Your task to perform on an android device: Add "bose soundlink mini" to the cart on costco.com Image 0: 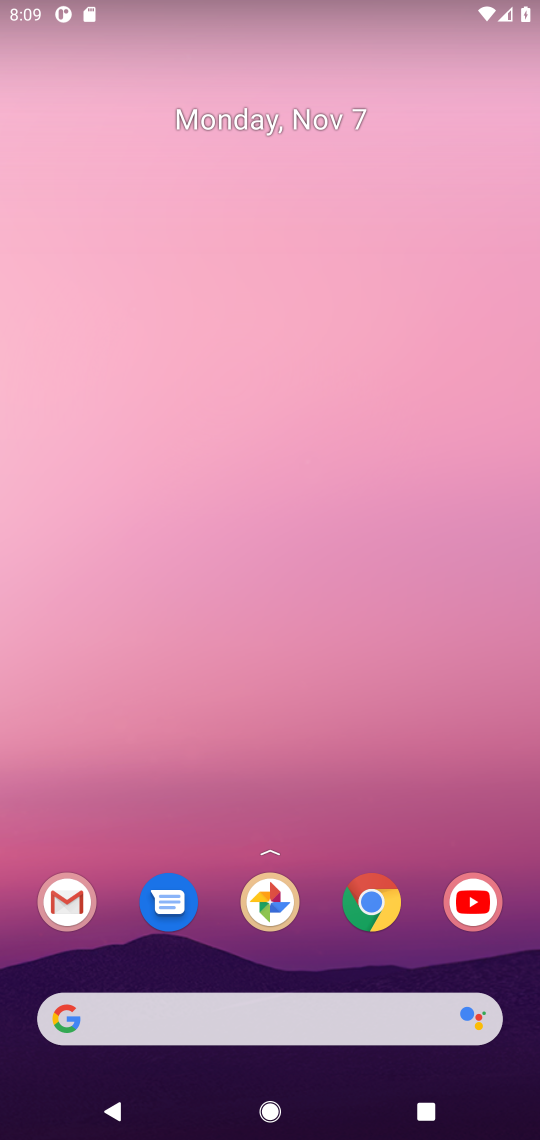
Step 0: click (374, 907)
Your task to perform on an android device: Add "bose soundlink mini" to the cart on costco.com Image 1: 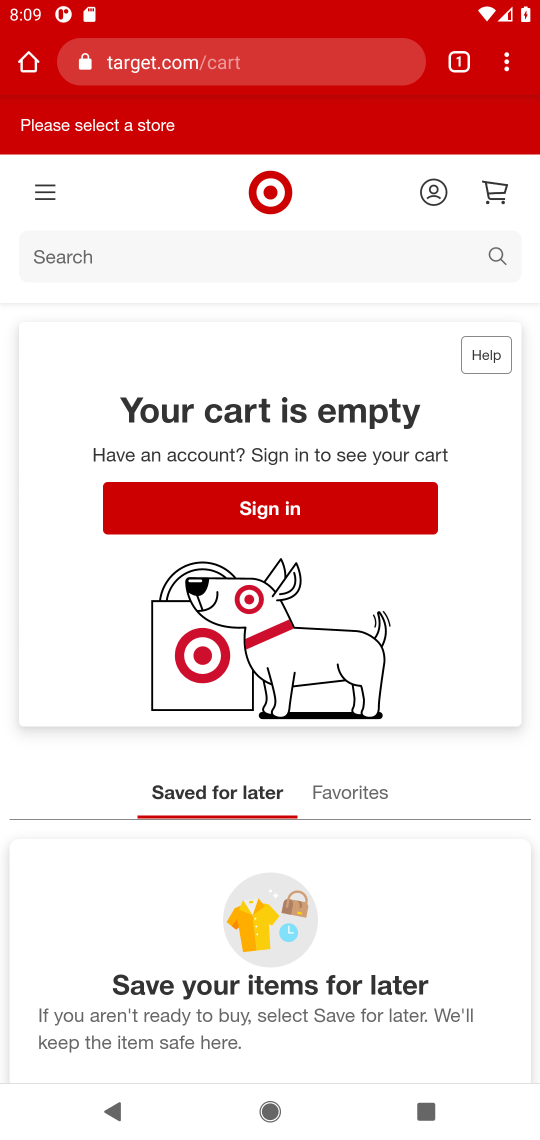
Step 1: click (218, 73)
Your task to perform on an android device: Add "bose soundlink mini" to the cart on costco.com Image 2: 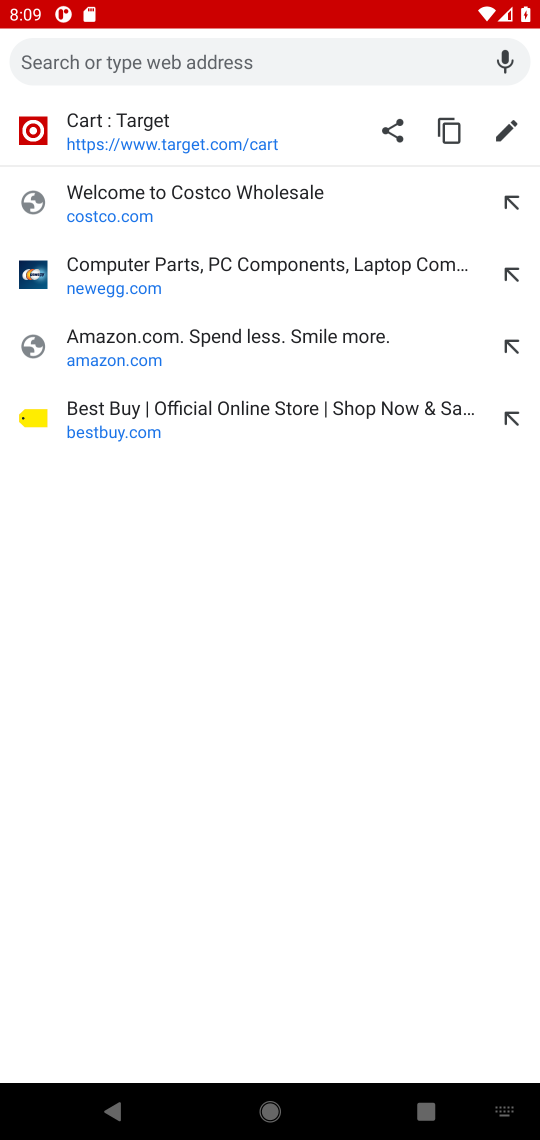
Step 2: click (105, 222)
Your task to perform on an android device: Add "bose soundlink mini" to the cart on costco.com Image 3: 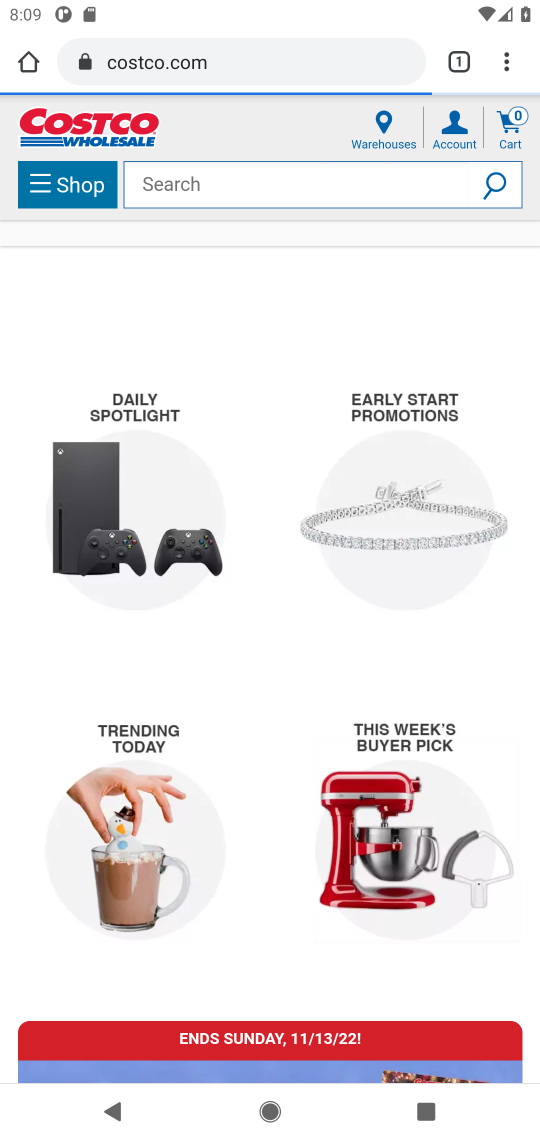
Step 3: click (179, 185)
Your task to perform on an android device: Add "bose soundlink mini" to the cart on costco.com Image 4: 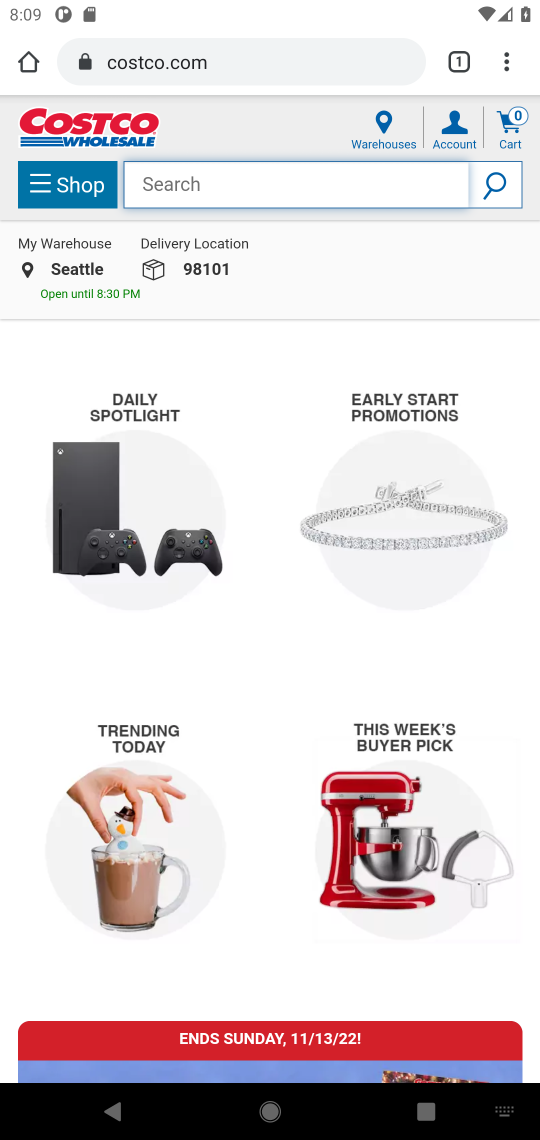
Step 4: type "bose soundlink mini"
Your task to perform on an android device: Add "bose soundlink mini" to the cart on costco.com Image 5: 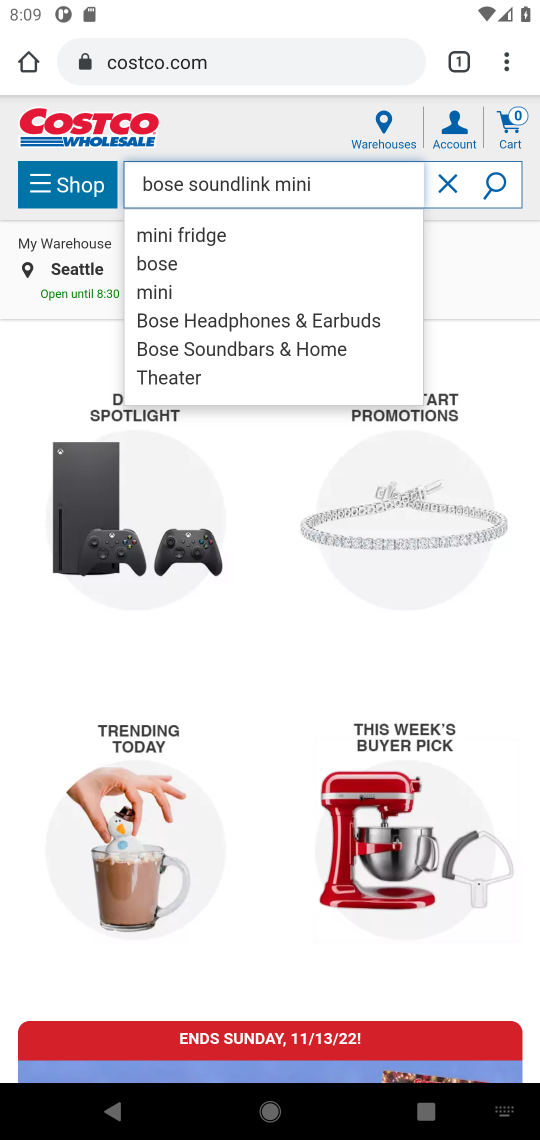
Step 5: click (488, 197)
Your task to perform on an android device: Add "bose soundlink mini" to the cart on costco.com Image 6: 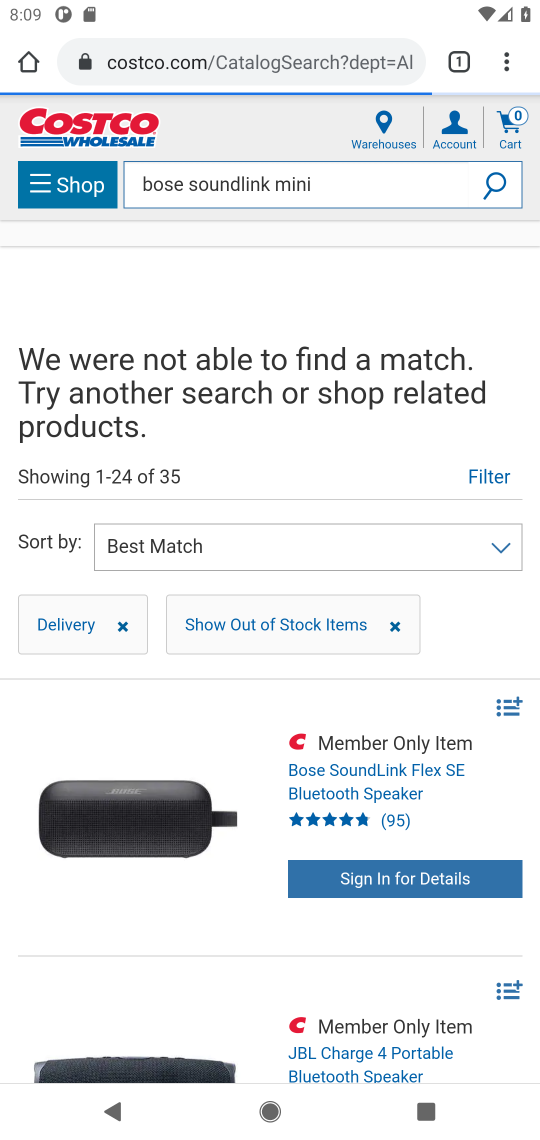
Step 6: task complete